Your task to perform on an android device: open a new tab in the chrome app Image 0: 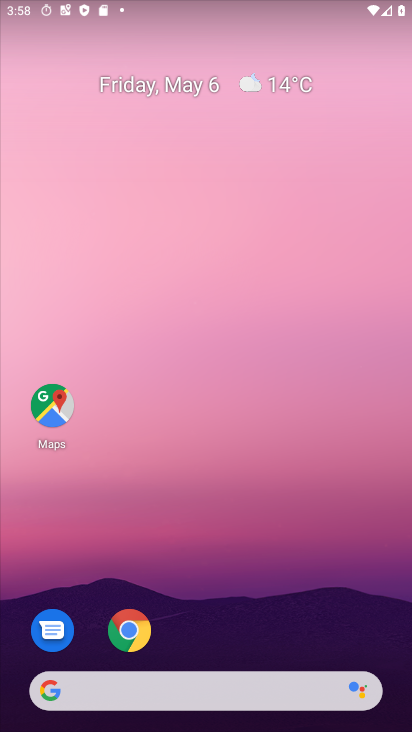
Step 0: click (130, 630)
Your task to perform on an android device: open a new tab in the chrome app Image 1: 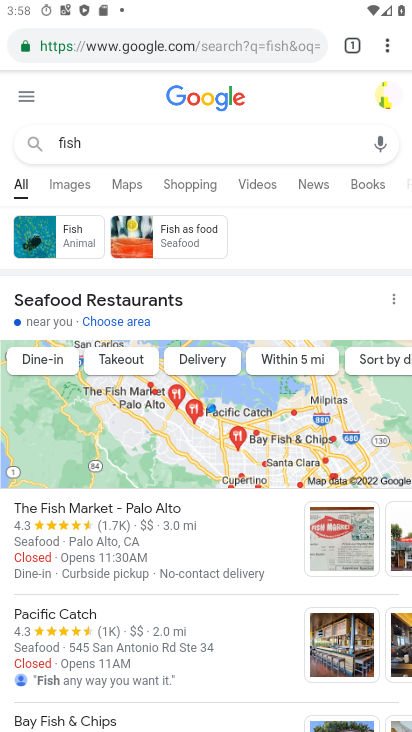
Step 1: click (352, 49)
Your task to perform on an android device: open a new tab in the chrome app Image 2: 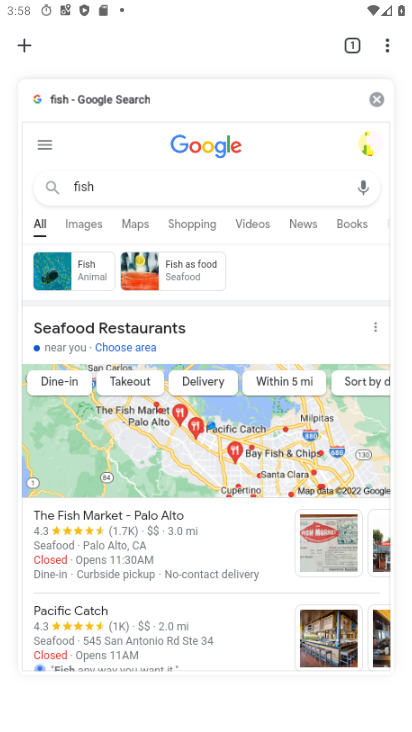
Step 2: click (41, 62)
Your task to perform on an android device: open a new tab in the chrome app Image 3: 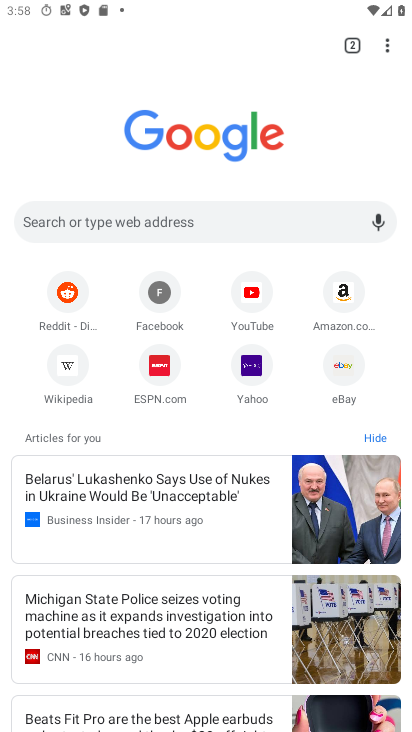
Step 3: task complete